Your task to perform on an android device: open chrome and create a bookmark for the current page Image 0: 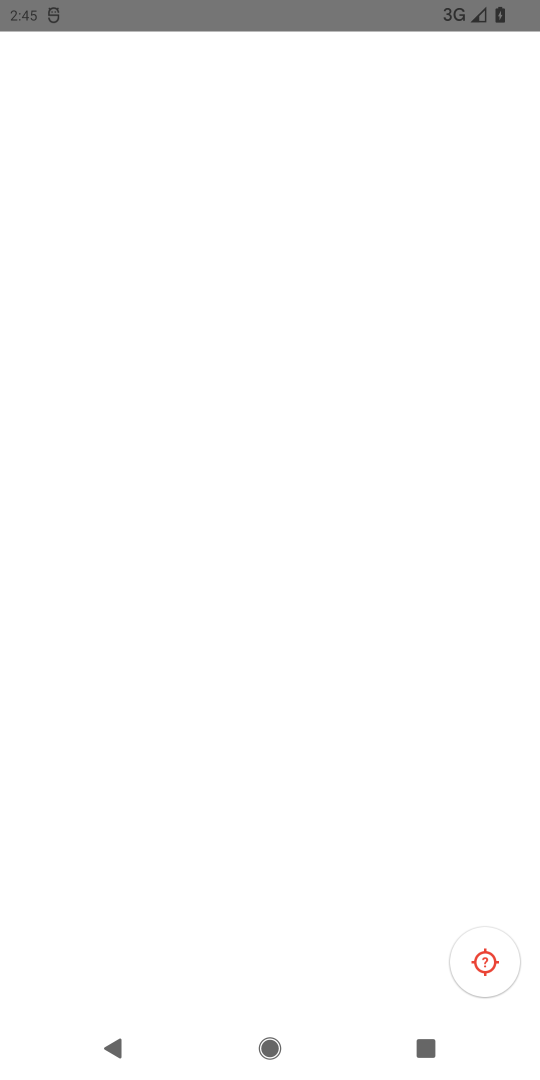
Step 0: press home button
Your task to perform on an android device: open chrome and create a bookmark for the current page Image 1: 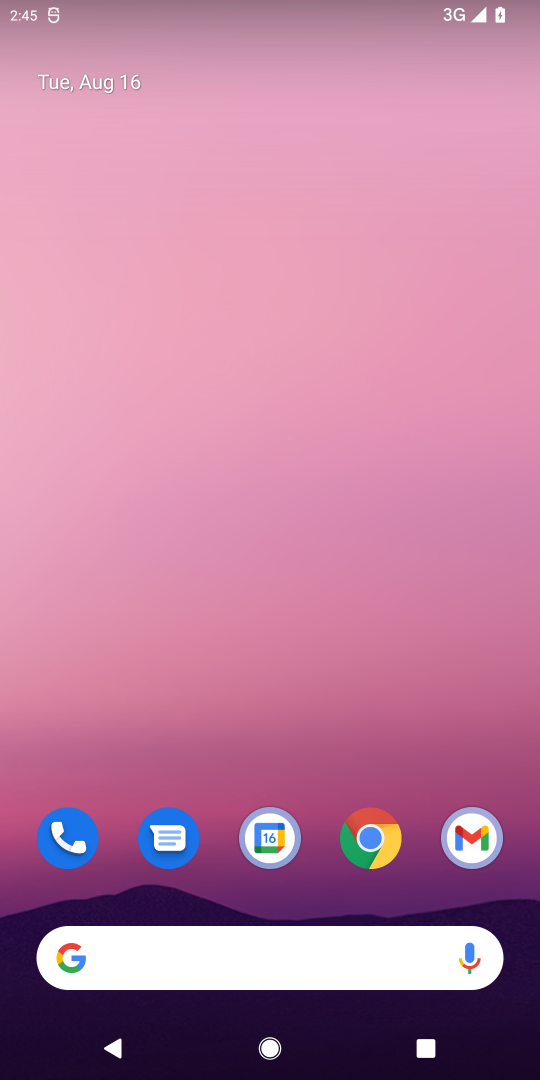
Step 1: click (383, 833)
Your task to perform on an android device: open chrome and create a bookmark for the current page Image 2: 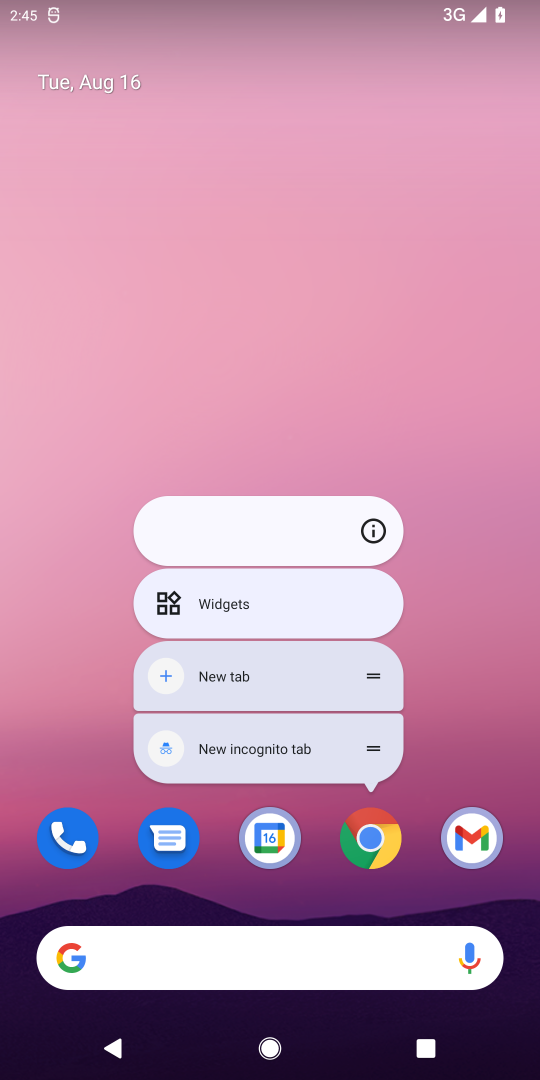
Step 2: click (398, 873)
Your task to perform on an android device: open chrome and create a bookmark for the current page Image 3: 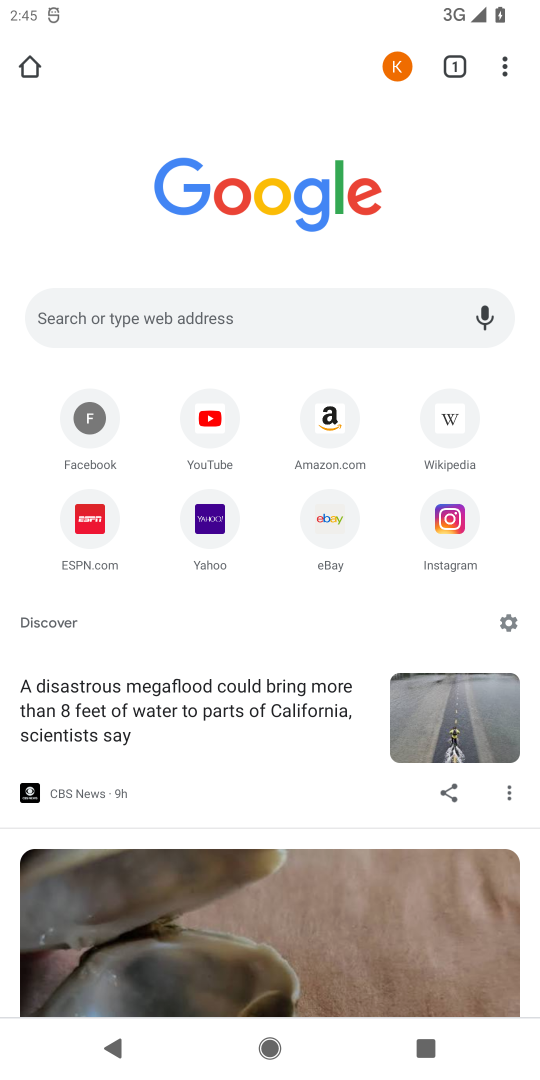
Step 3: drag from (514, 56) to (304, 71)
Your task to perform on an android device: open chrome and create a bookmark for the current page Image 4: 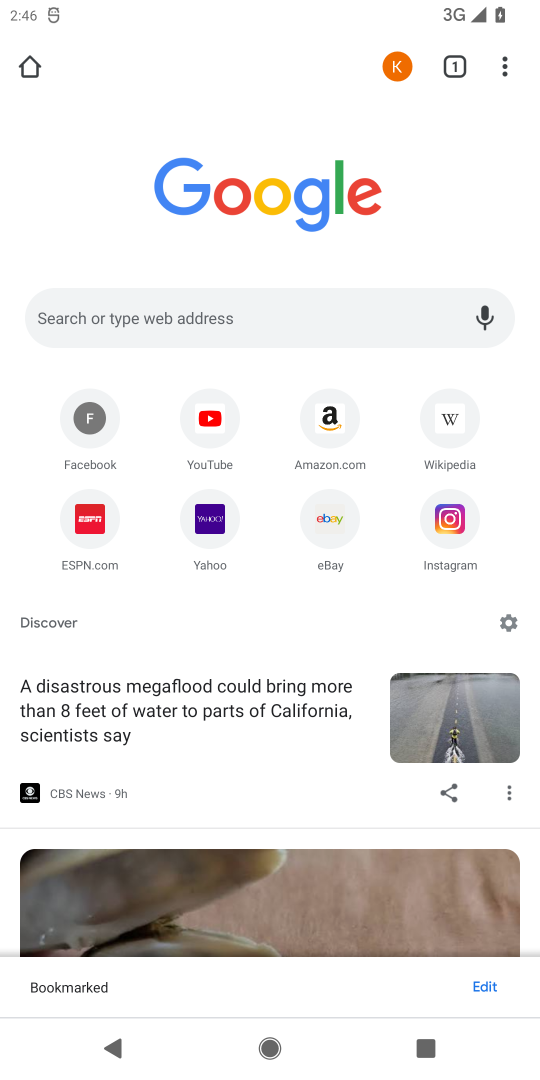
Step 4: click (500, 64)
Your task to perform on an android device: open chrome and create a bookmark for the current page Image 5: 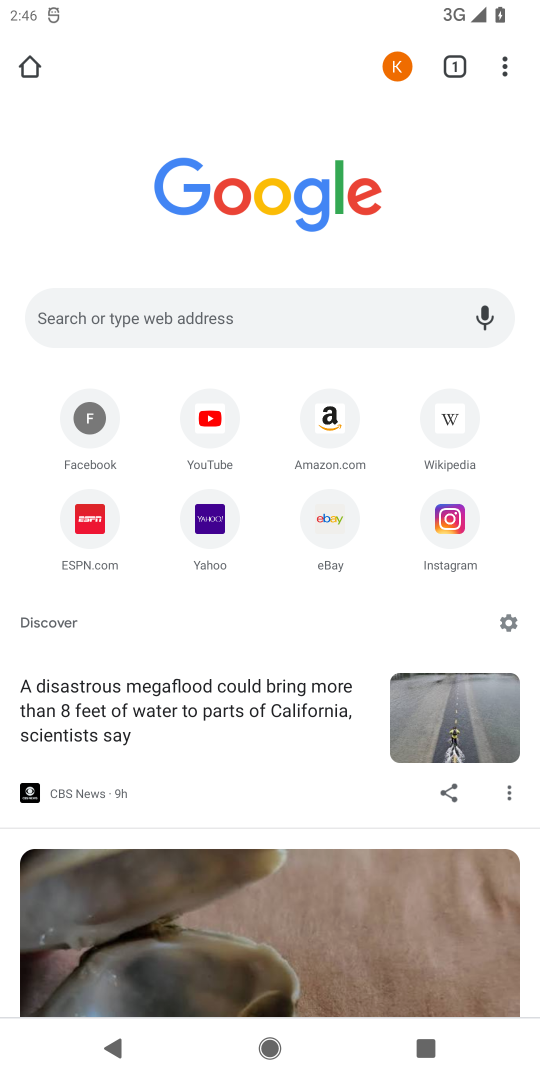
Step 5: task complete